Your task to perform on an android device: open app "Expedia: Hotels, Flights & Car" (install if not already installed) Image 0: 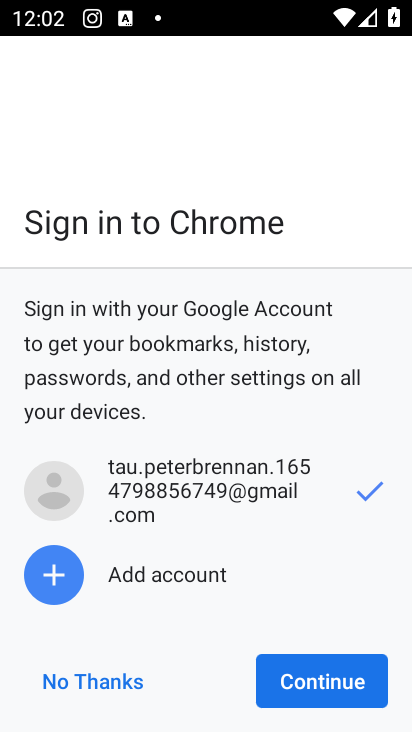
Step 0: press home button
Your task to perform on an android device: open app "Expedia: Hotels, Flights & Car" (install if not already installed) Image 1: 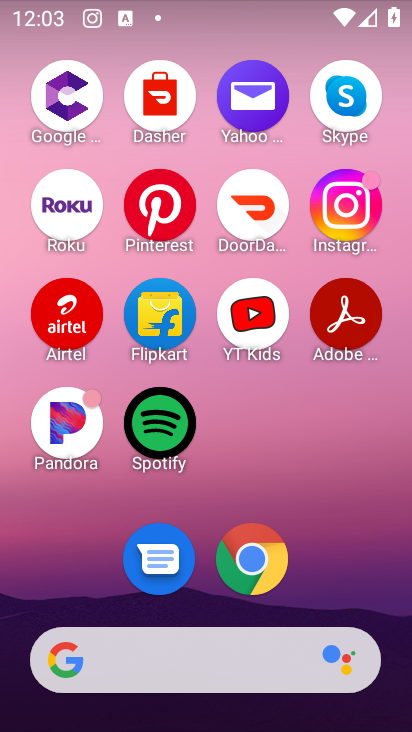
Step 1: drag from (323, 436) to (365, 1)
Your task to perform on an android device: open app "Expedia: Hotels, Flights & Car" (install if not already installed) Image 2: 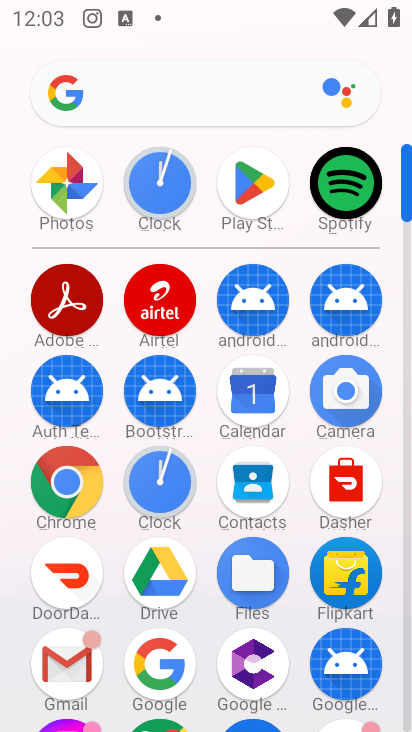
Step 2: click (275, 177)
Your task to perform on an android device: open app "Expedia: Hotels, Flights & Car" (install if not already installed) Image 3: 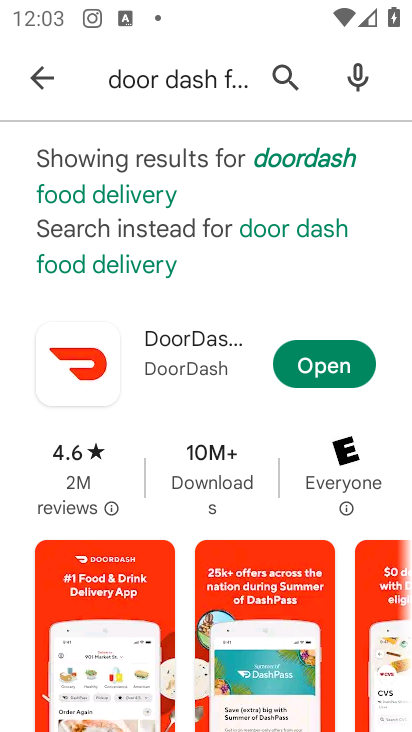
Step 3: click (289, 59)
Your task to perform on an android device: open app "Expedia: Hotels, Flights & Car" (install if not already installed) Image 4: 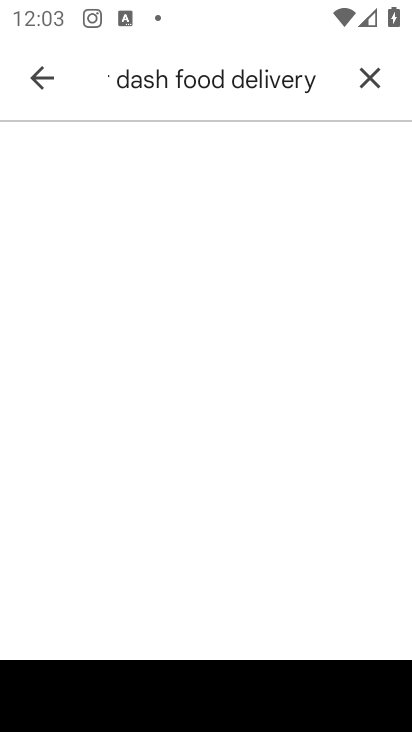
Step 4: click (373, 83)
Your task to perform on an android device: open app "Expedia: Hotels, Flights & Car" (install if not already installed) Image 5: 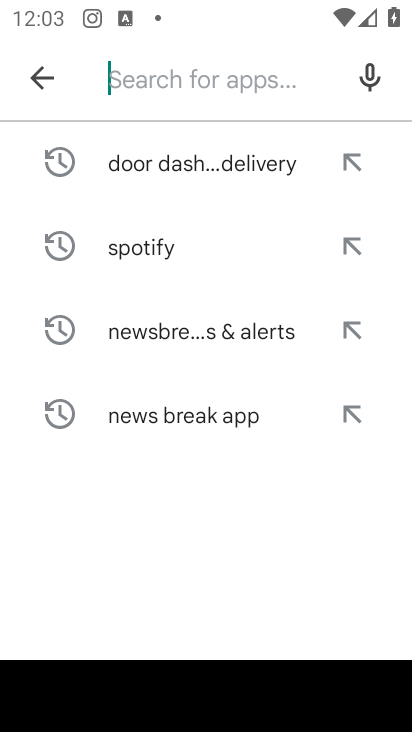
Step 5: click (143, 82)
Your task to perform on an android device: open app "Expedia: Hotels, Flights & Car" (install if not already installed) Image 6: 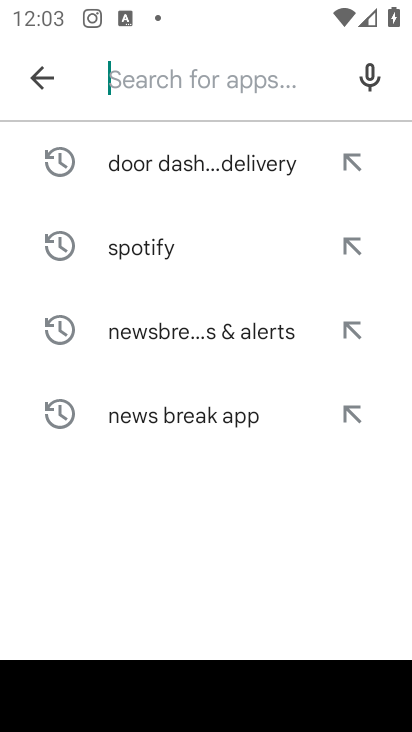
Step 6: type "expedia"
Your task to perform on an android device: open app "Expedia: Hotels, Flights & Car" (install if not already installed) Image 7: 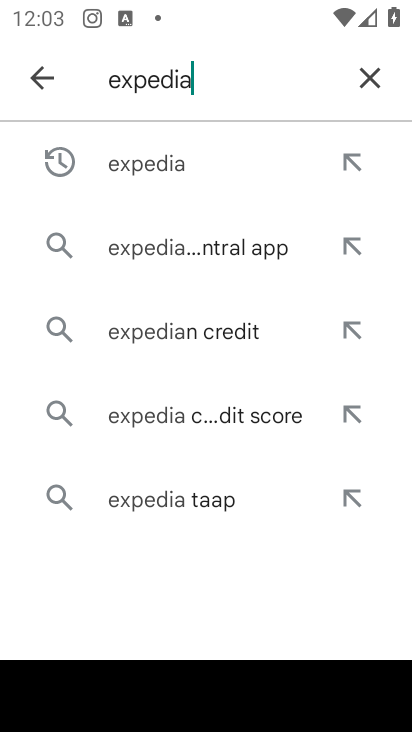
Step 7: click (195, 142)
Your task to perform on an android device: open app "Expedia: Hotels, Flights & Car" (install if not already installed) Image 8: 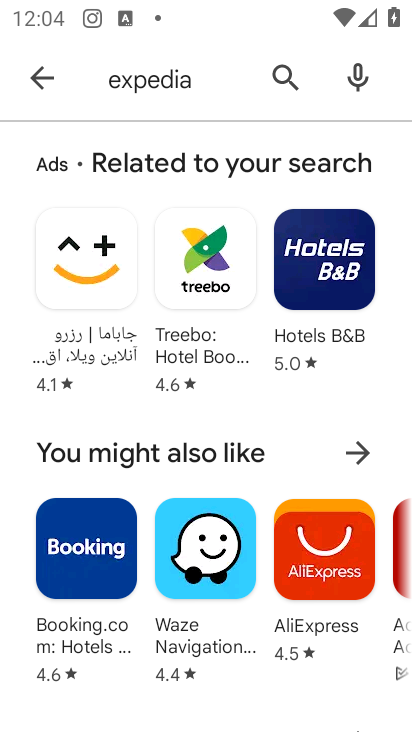
Step 8: task complete